Your task to perform on an android device: Open calendar and show me the fourth week of next month Image 0: 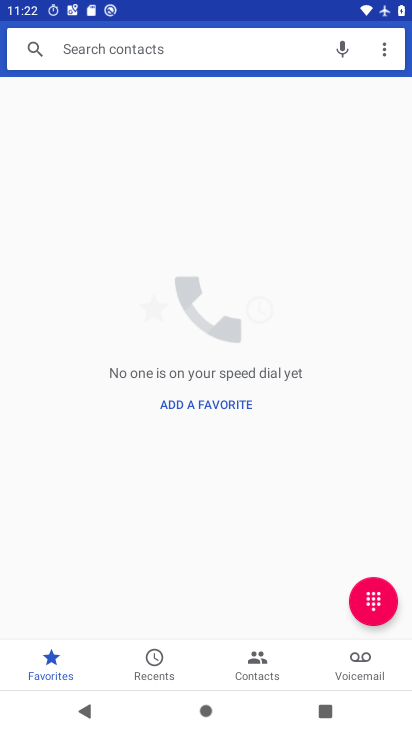
Step 0: press home button
Your task to perform on an android device: Open calendar and show me the fourth week of next month Image 1: 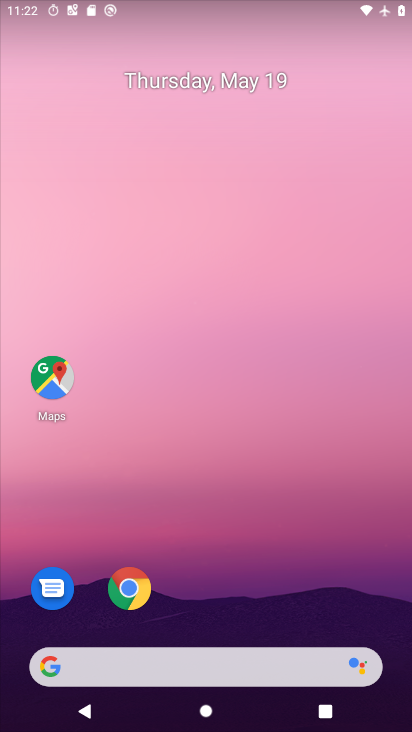
Step 1: drag from (191, 659) to (339, 40)
Your task to perform on an android device: Open calendar and show me the fourth week of next month Image 2: 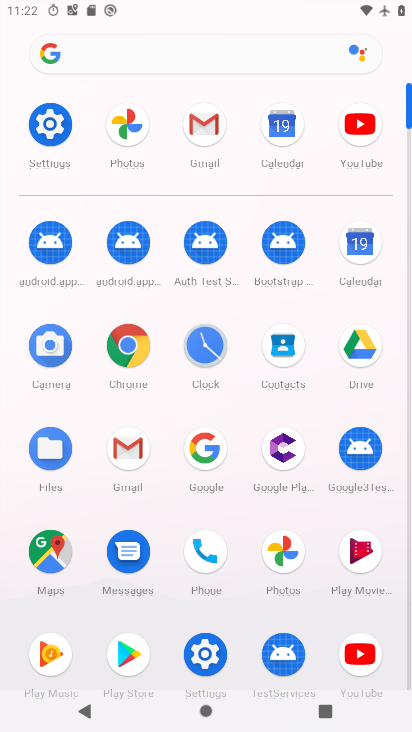
Step 2: click (282, 134)
Your task to perform on an android device: Open calendar and show me the fourth week of next month Image 3: 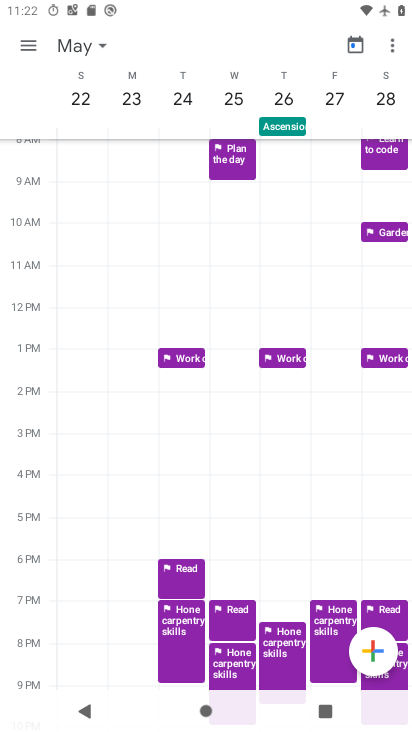
Step 3: click (80, 49)
Your task to perform on an android device: Open calendar and show me the fourth week of next month Image 4: 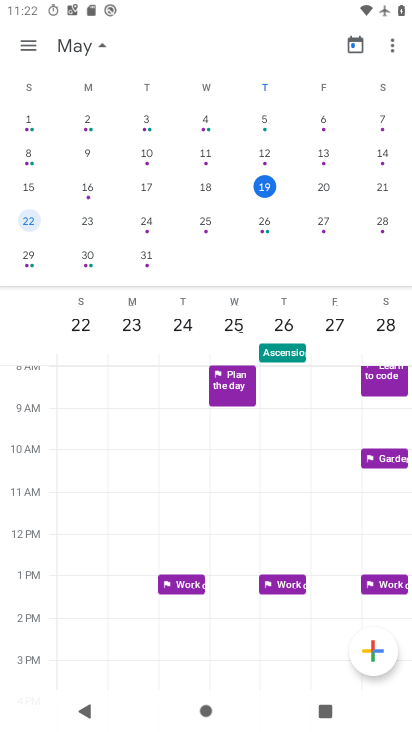
Step 4: drag from (376, 204) to (70, 197)
Your task to perform on an android device: Open calendar and show me the fourth week of next month Image 5: 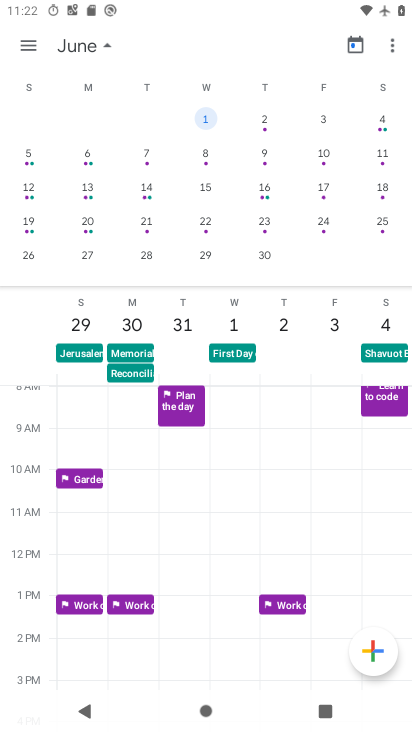
Step 5: click (29, 224)
Your task to perform on an android device: Open calendar and show me the fourth week of next month Image 6: 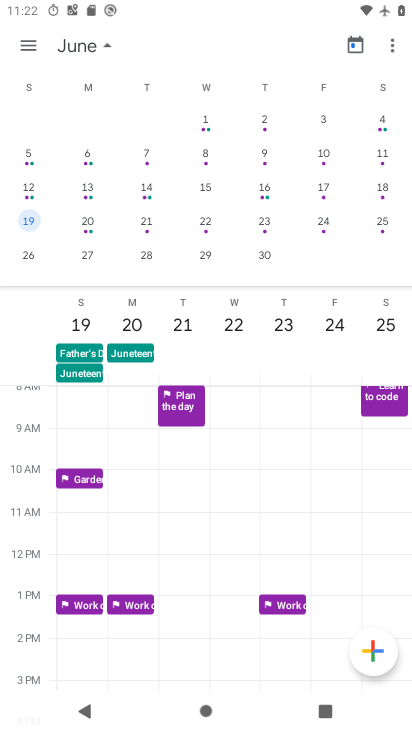
Step 6: click (31, 41)
Your task to perform on an android device: Open calendar and show me the fourth week of next month Image 7: 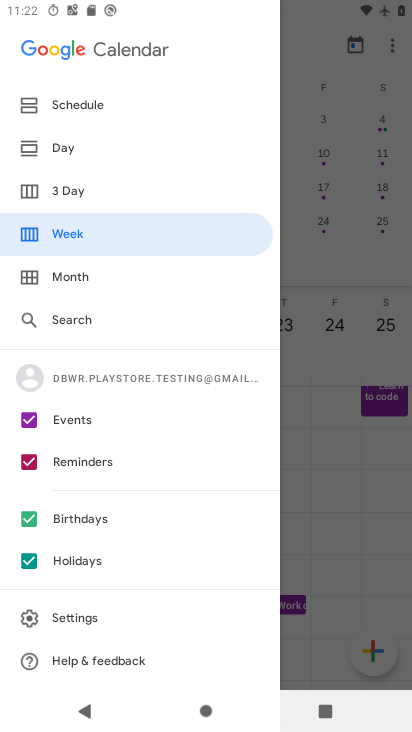
Step 7: click (90, 235)
Your task to perform on an android device: Open calendar and show me the fourth week of next month Image 8: 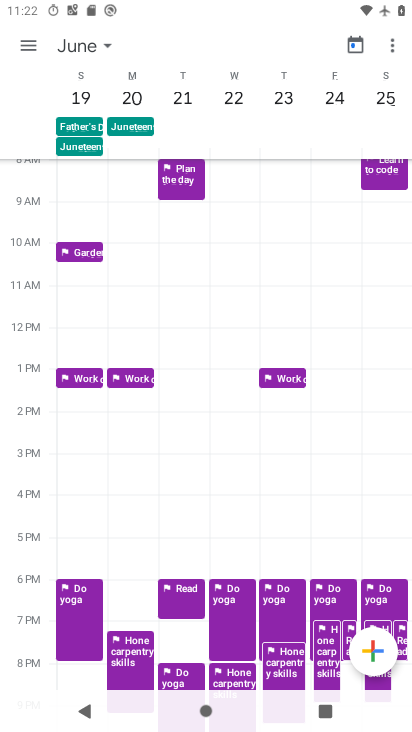
Step 8: task complete